Your task to perform on an android device: Open the calendar app, open the side menu, and click the "Day" option Image 0: 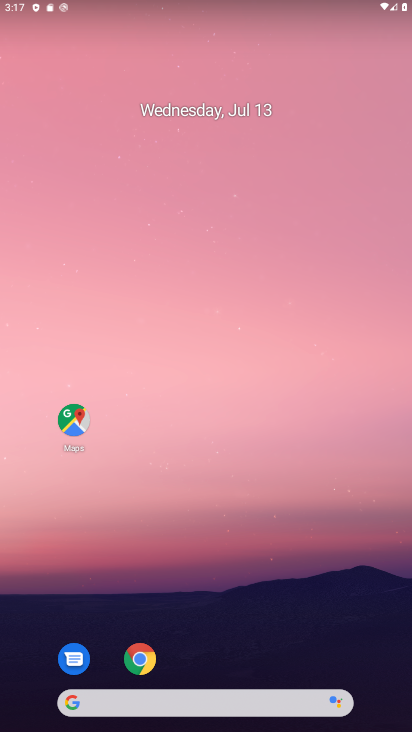
Step 0: drag from (282, 637) to (344, 27)
Your task to perform on an android device: Open the calendar app, open the side menu, and click the "Day" option Image 1: 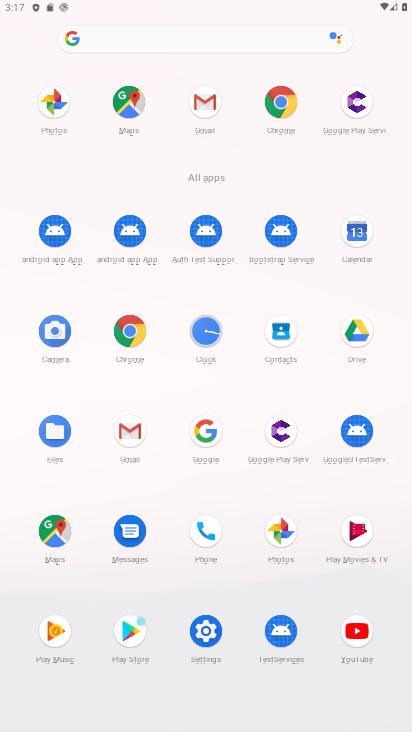
Step 1: drag from (358, 235) to (147, 260)
Your task to perform on an android device: Open the calendar app, open the side menu, and click the "Day" option Image 2: 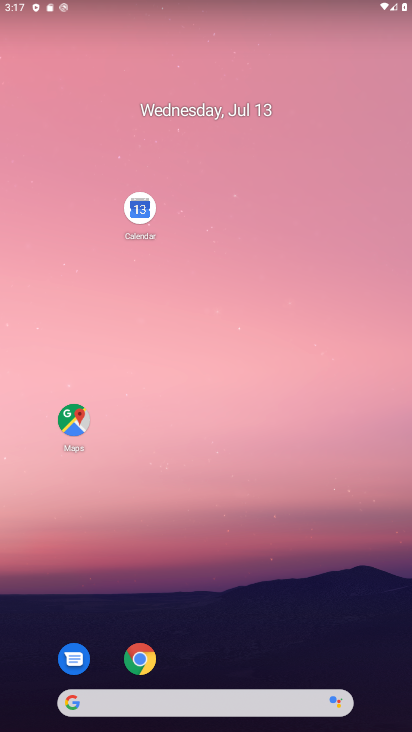
Step 2: click (149, 212)
Your task to perform on an android device: Open the calendar app, open the side menu, and click the "Day" option Image 3: 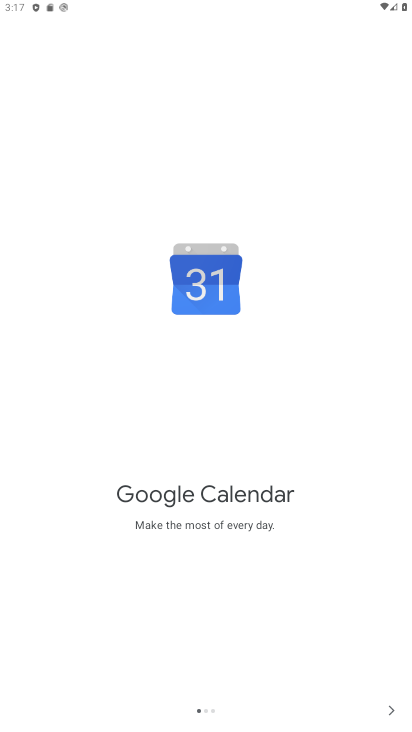
Step 3: click (381, 710)
Your task to perform on an android device: Open the calendar app, open the side menu, and click the "Day" option Image 4: 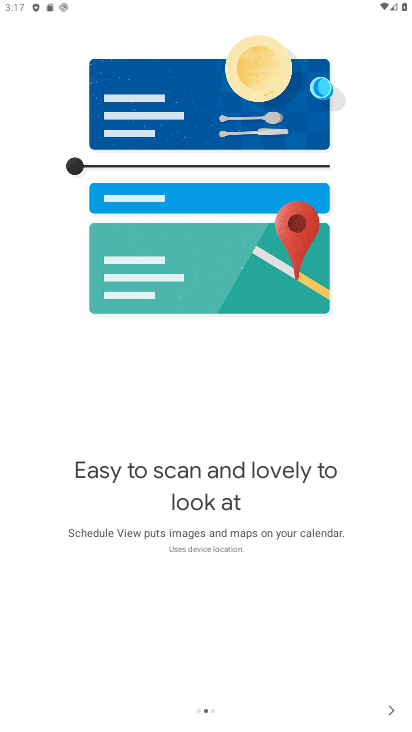
Step 4: click (395, 710)
Your task to perform on an android device: Open the calendar app, open the side menu, and click the "Day" option Image 5: 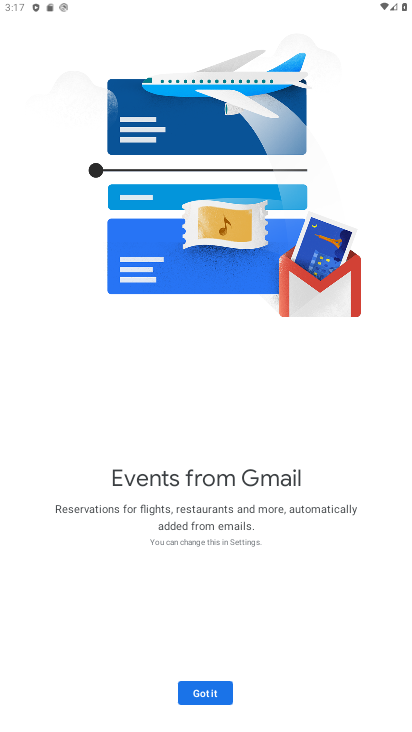
Step 5: click (217, 692)
Your task to perform on an android device: Open the calendar app, open the side menu, and click the "Day" option Image 6: 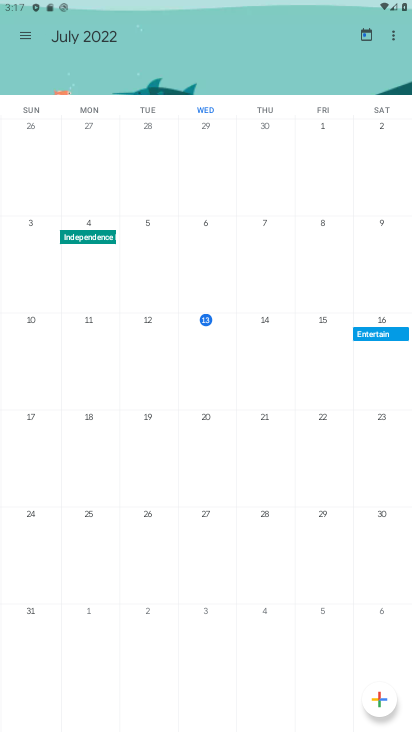
Step 6: click (23, 33)
Your task to perform on an android device: Open the calendar app, open the side menu, and click the "Day" option Image 7: 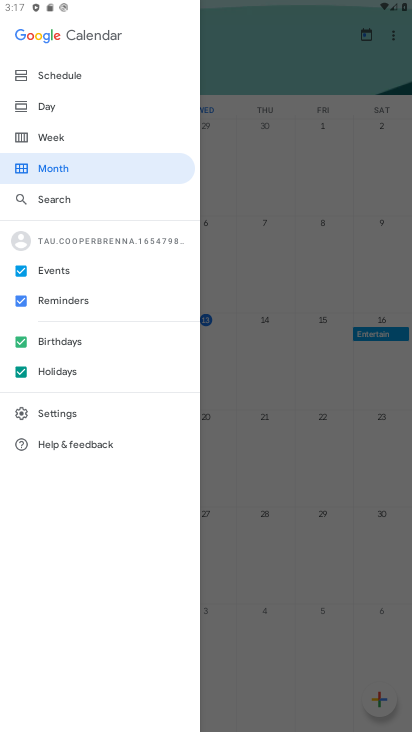
Step 7: click (78, 106)
Your task to perform on an android device: Open the calendar app, open the side menu, and click the "Day" option Image 8: 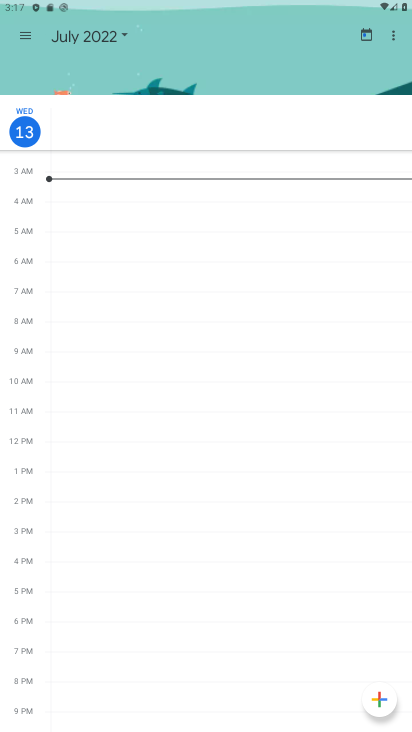
Step 8: task complete